Your task to perform on an android device: Open Chrome and go to settings Image 0: 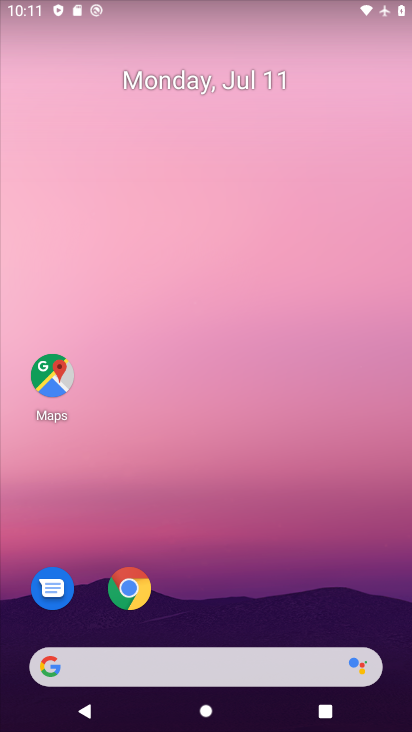
Step 0: click (129, 592)
Your task to perform on an android device: Open Chrome and go to settings Image 1: 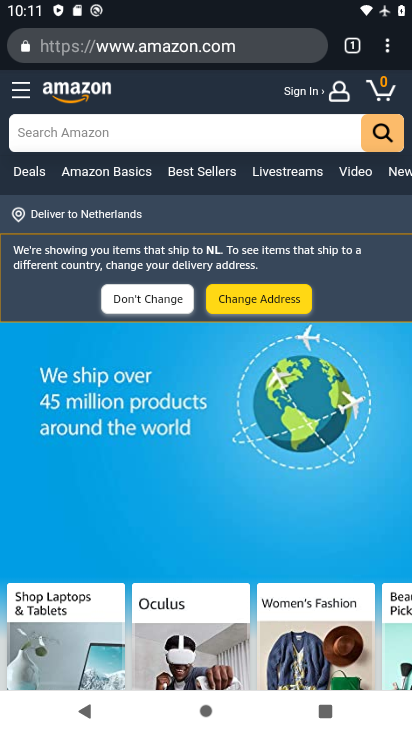
Step 1: task complete